Your task to perform on an android device: Open wifi settings Image 0: 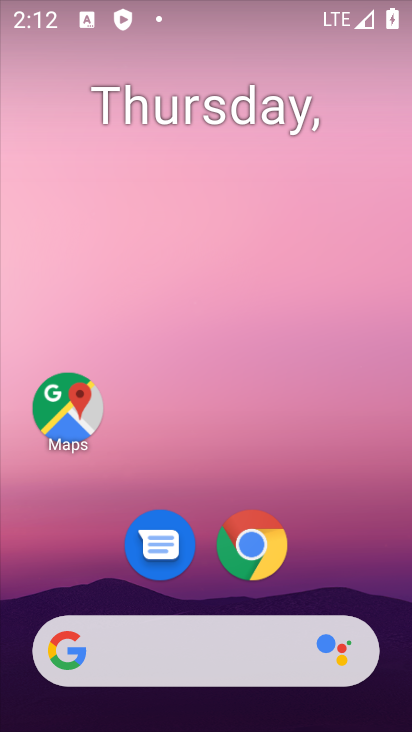
Step 0: drag from (256, 482) to (241, 2)
Your task to perform on an android device: Open wifi settings Image 1: 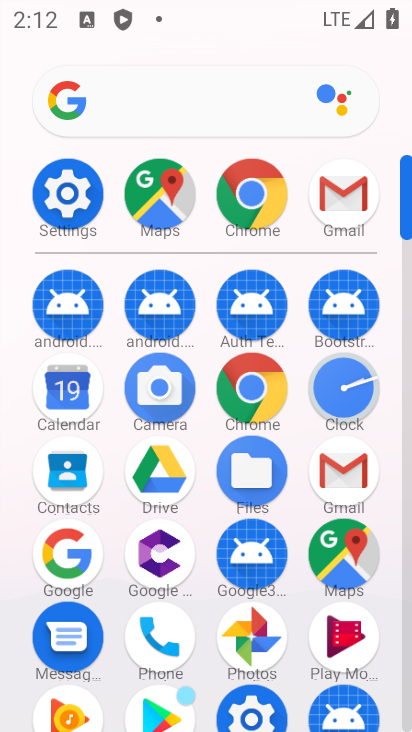
Step 1: click (72, 200)
Your task to perform on an android device: Open wifi settings Image 2: 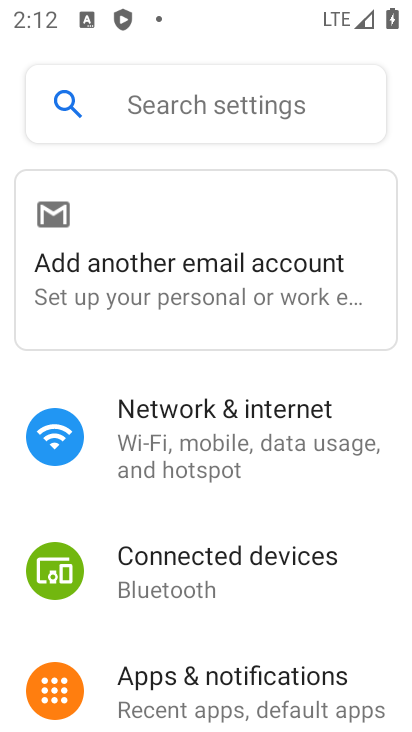
Step 2: click (291, 425)
Your task to perform on an android device: Open wifi settings Image 3: 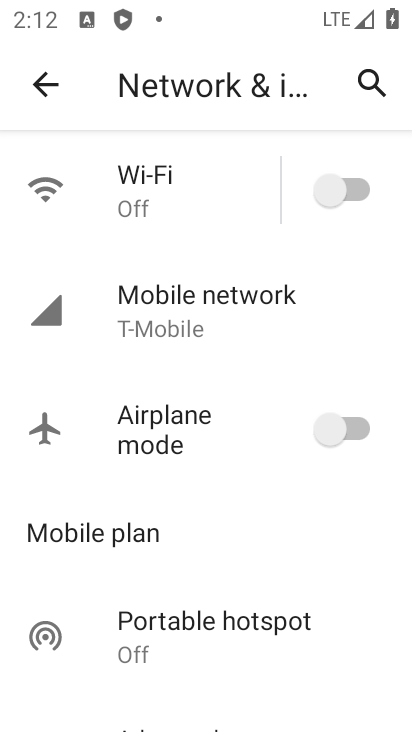
Step 3: click (166, 189)
Your task to perform on an android device: Open wifi settings Image 4: 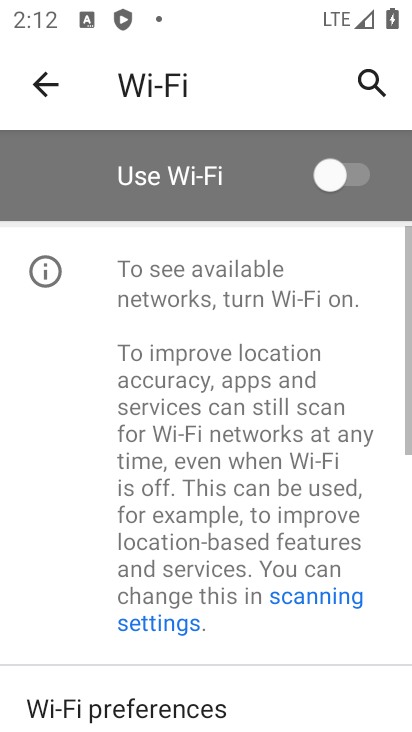
Step 4: task complete